Your task to perform on an android device: Open Yahoo.com Image 0: 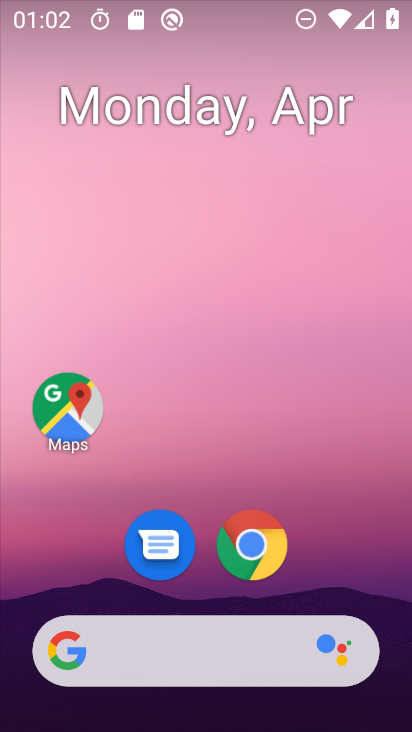
Step 0: drag from (324, 565) to (340, 266)
Your task to perform on an android device: Open Yahoo.com Image 1: 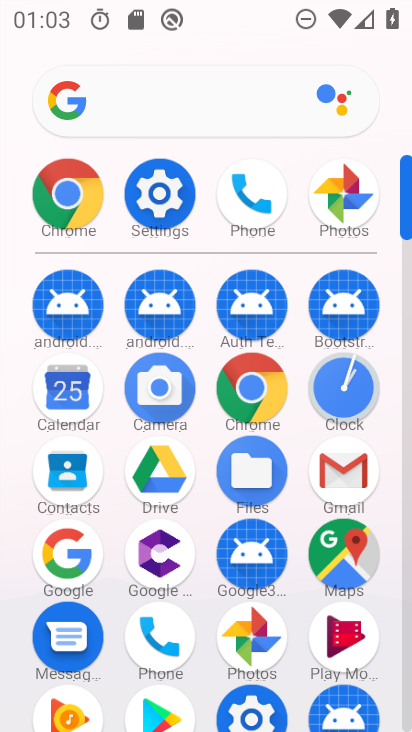
Step 1: click (71, 205)
Your task to perform on an android device: Open Yahoo.com Image 2: 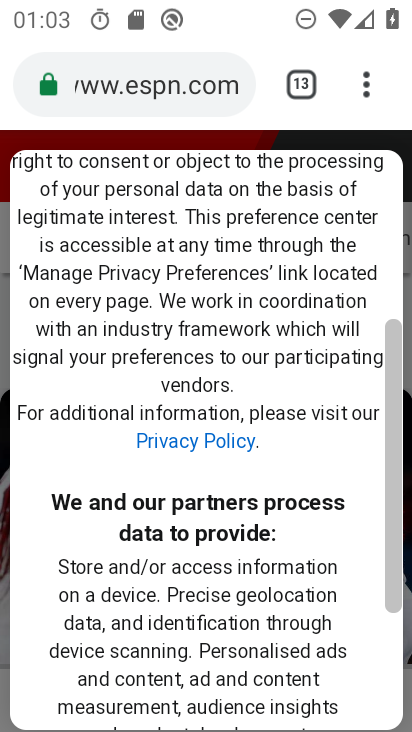
Step 2: click (355, 89)
Your task to perform on an android device: Open Yahoo.com Image 3: 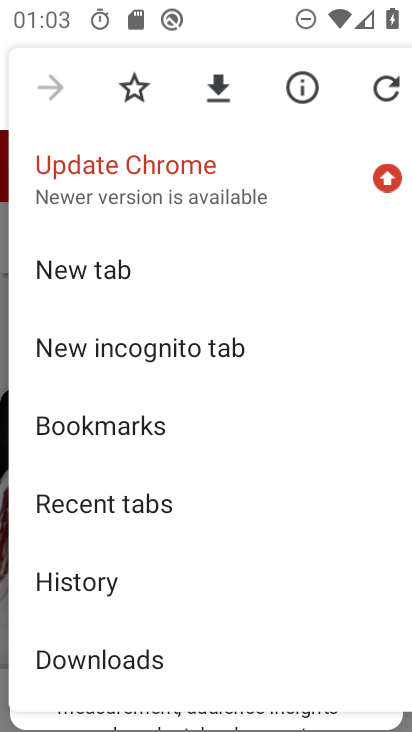
Step 3: click (104, 263)
Your task to perform on an android device: Open Yahoo.com Image 4: 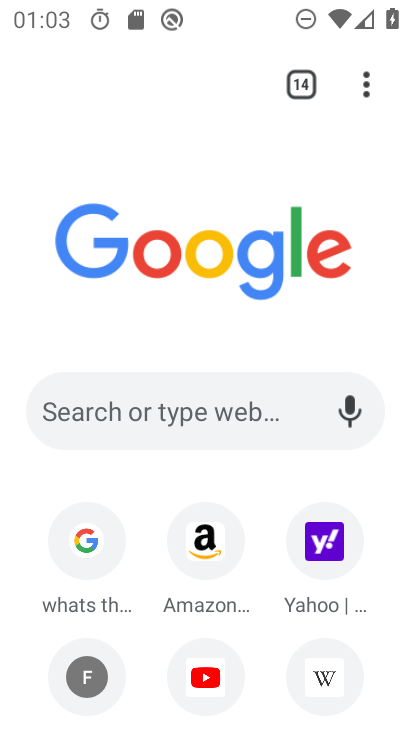
Step 4: click (325, 549)
Your task to perform on an android device: Open Yahoo.com Image 5: 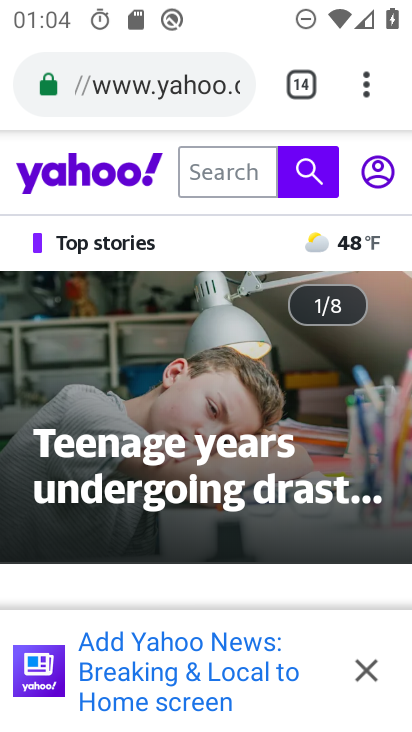
Step 5: task complete